Your task to perform on an android device: Open eBay Image 0: 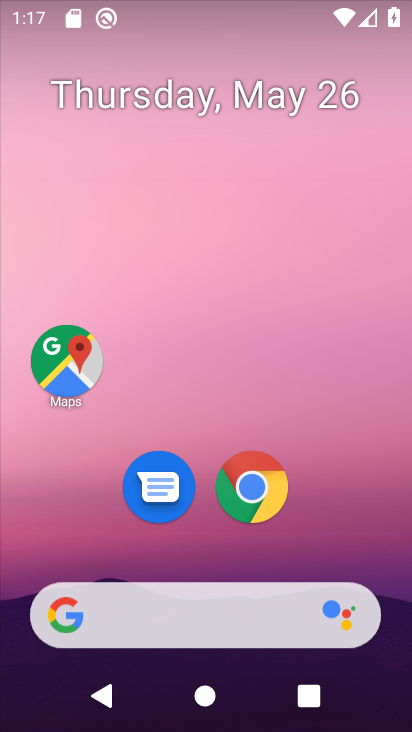
Step 0: click (255, 489)
Your task to perform on an android device: Open eBay Image 1: 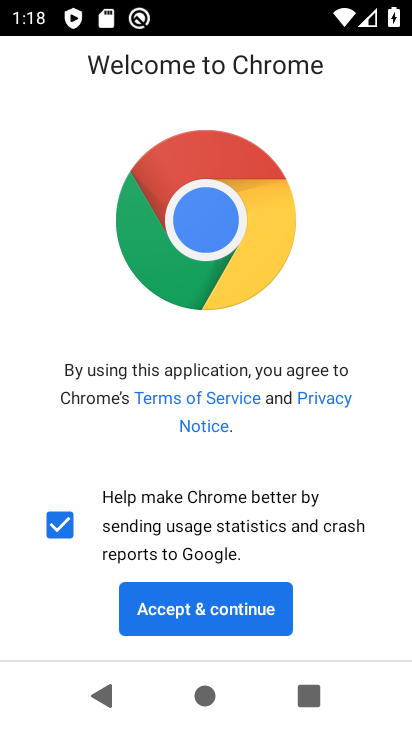
Step 1: click (213, 610)
Your task to perform on an android device: Open eBay Image 2: 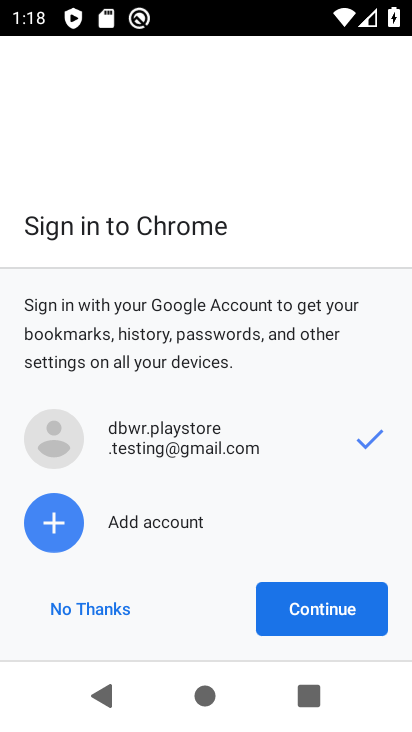
Step 2: click (289, 600)
Your task to perform on an android device: Open eBay Image 3: 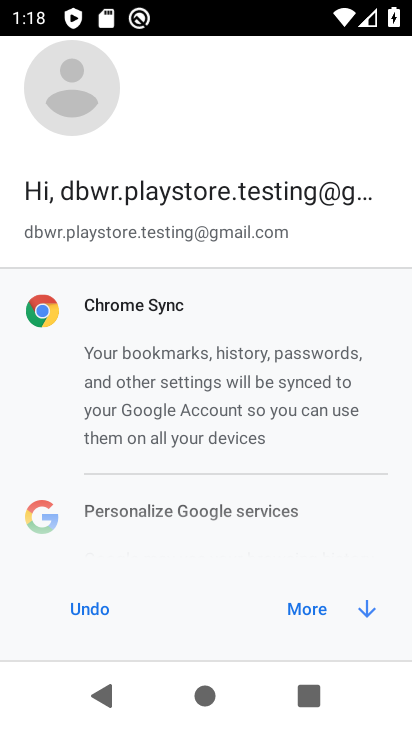
Step 3: click (289, 600)
Your task to perform on an android device: Open eBay Image 4: 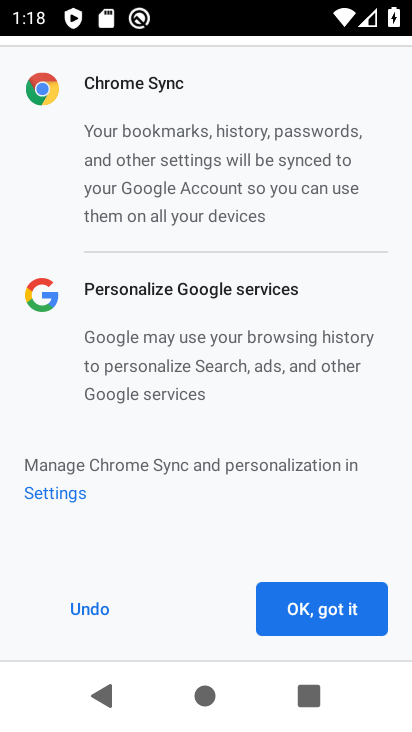
Step 4: click (343, 604)
Your task to perform on an android device: Open eBay Image 5: 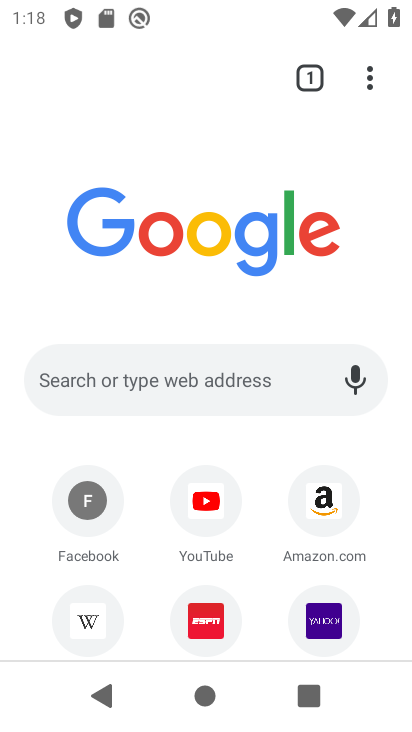
Step 5: task complete